Your task to perform on an android device: see creations saved in the google photos Image 0: 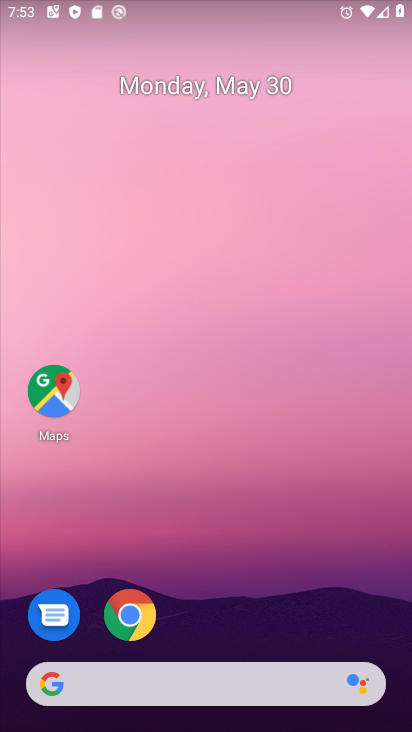
Step 0: drag from (256, 550) to (204, 131)
Your task to perform on an android device: see creations saved in the google photos Image 1: 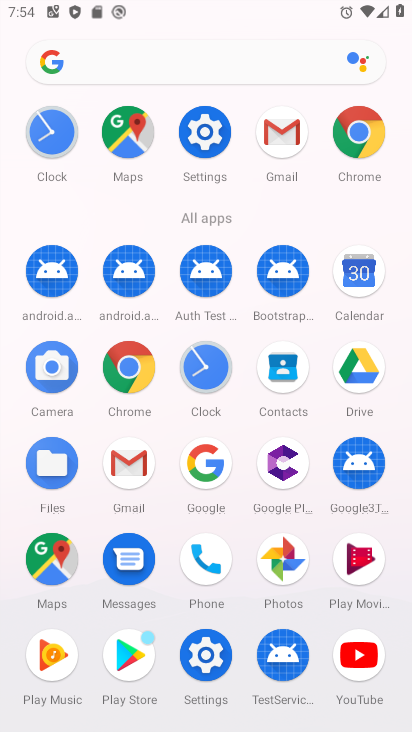
Step 1: click (264, 559)
Your task to perform on an android device: see creations saved in the google photos Image 2: 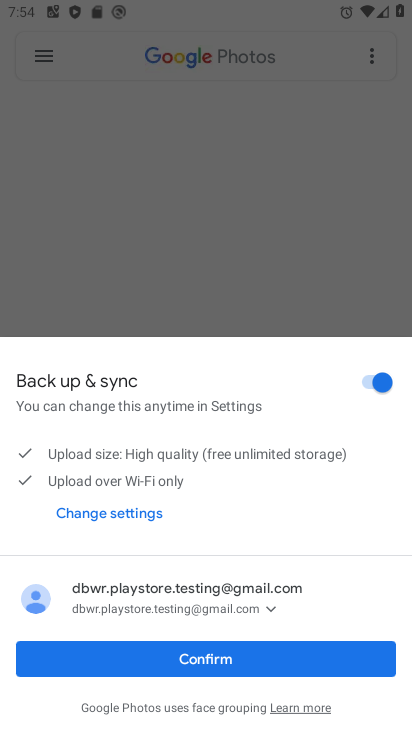
Step 2: click (204, 658)
Your task to perform on an android device: see creations saved in the google photos Image 3: 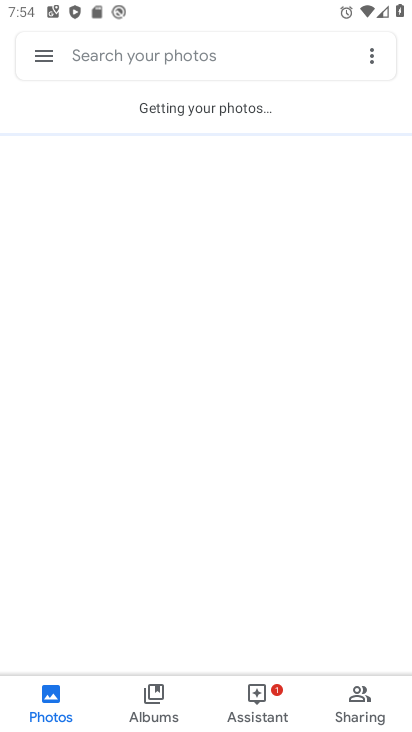
Step 3: click (148, 698)
Your task to perform on an android device: see creations saved in the google photos Image 4: 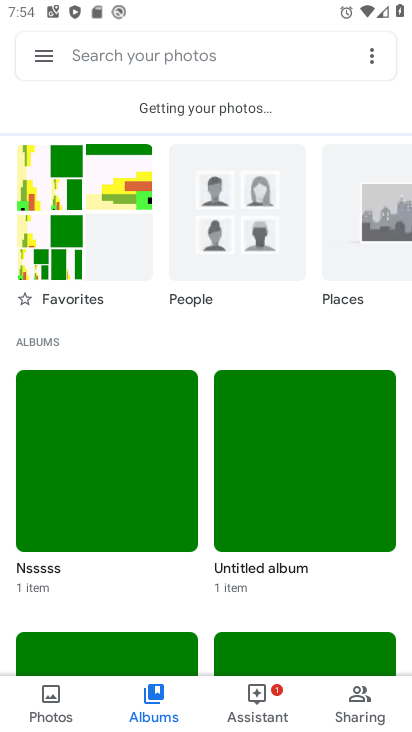
Step 4: task complete